Your task to perform on an android device: turn notification dots off Image 0: 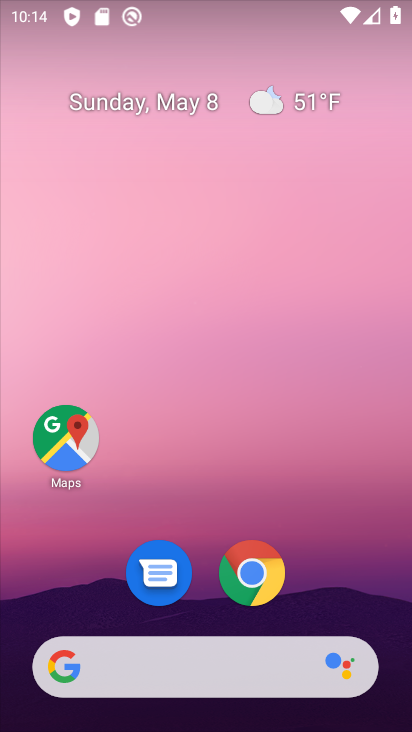
Step 0: drag from (182, 638) to (250, 70)
Your task to perform on an android device: turn notification dots off Image 1: 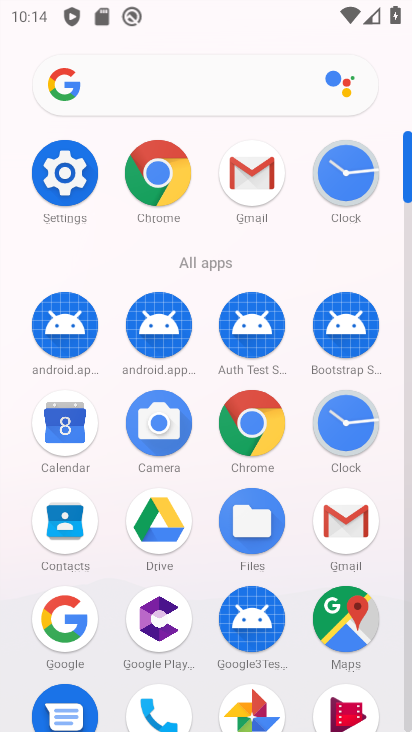
Step 1: click (64, 174)
Your task to perform on an android device: turn notification dots off Image 2: 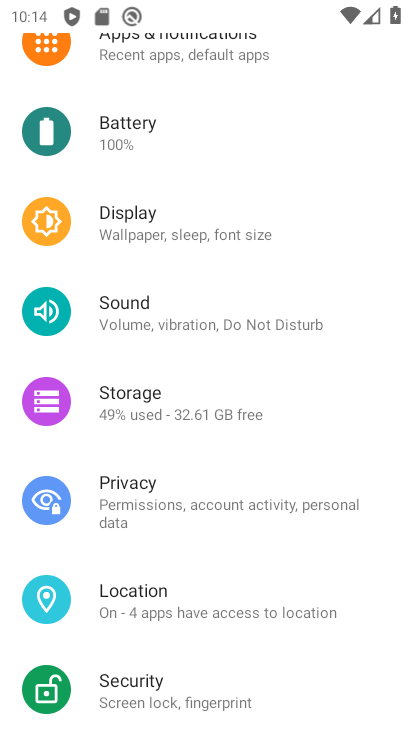
Step 2: drag from (124, 673) to (180, 273)
Your task to perform on an android device: turn notification dots off Image 3: 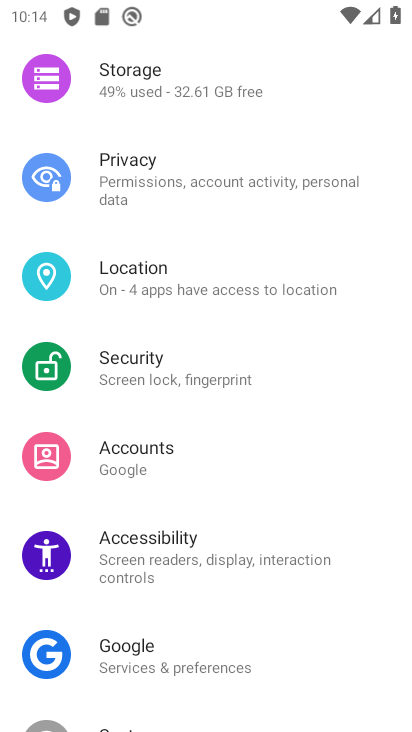
Step 3: drag from (231, 97) to (201, 645)
Your task to perform on an android device: turn notification dots off Image 4: 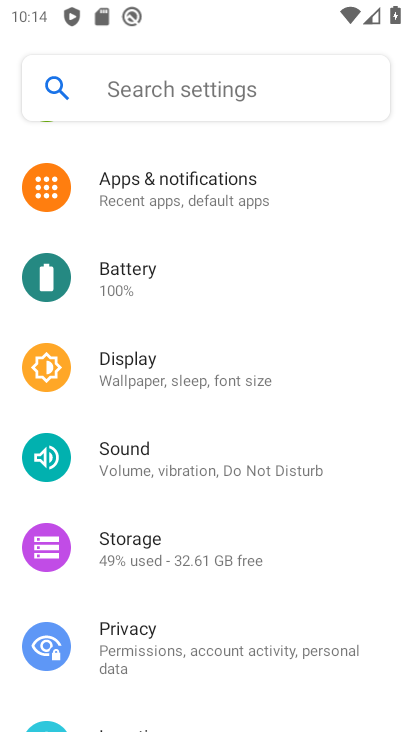
Step 4: click (172, 186)
Your task to perform on an android device: turn notification dots off Image 5: 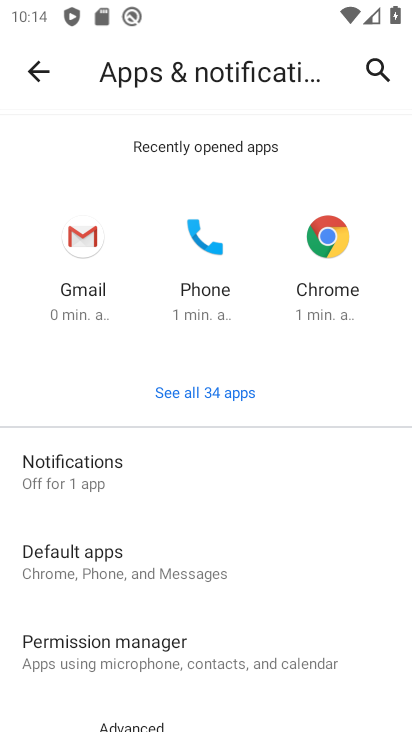
Step 5: drag from (90, 632) to (80, 309)
Your task to perform on an android device: turn notification dots off Image 6: 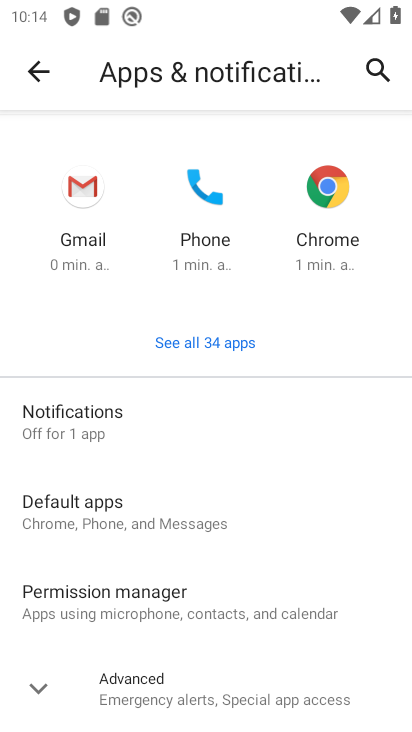
Step 6: click (52, 437)
Your task to perform on an android device: turn notification dots off Image 7: 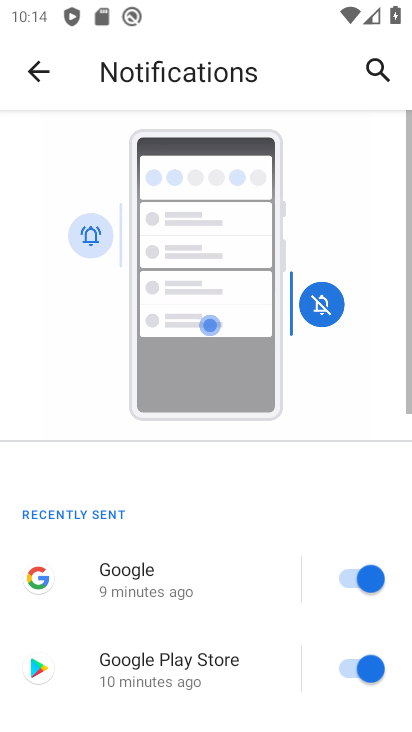
Step 7: drag from (138, 667) to (125, 291)
Your task to perform on an android device: turn notification dots off Image 8: 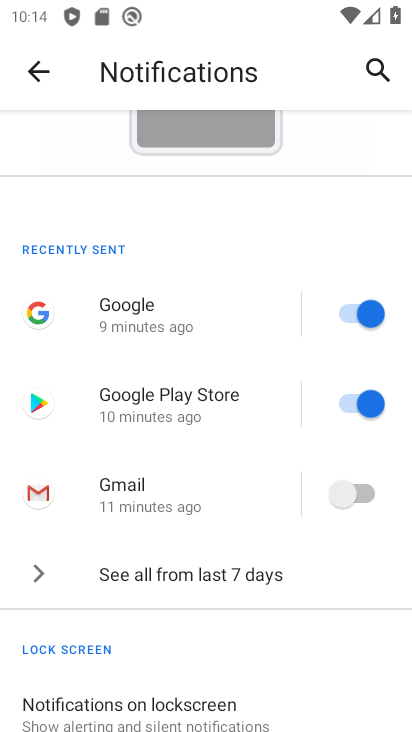
Step 8: drag from (166, 613) to (170, 290)
Your task to perform on an android device: turn notification dots off Image 9: 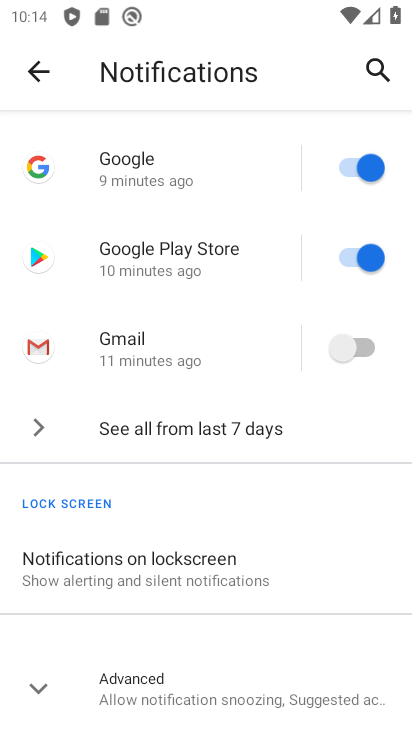
Step 9: click (137, 683)
Your task to perform on an android device: turn notification dots off Image 10: 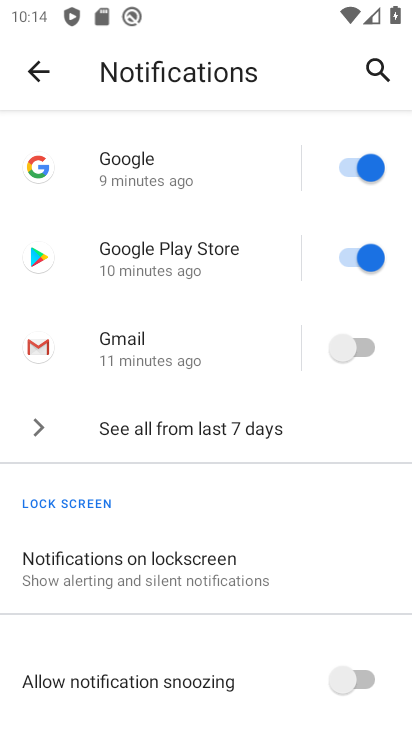
Step 10: drag from (143, 658) to (208, 261)
Your task to perform on an android device: turn notification dots off Image 11: 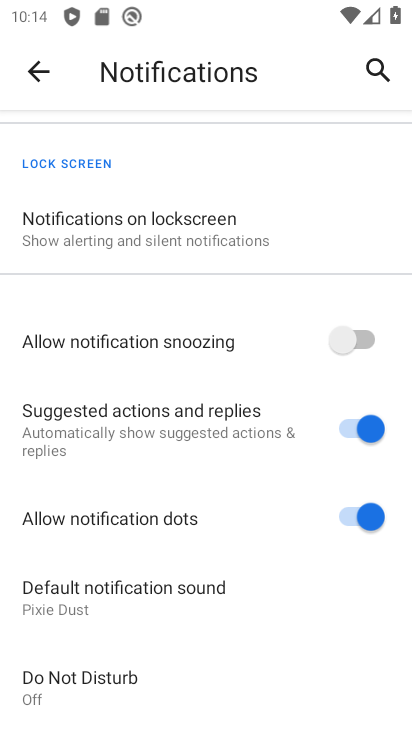
Step 11: click (353, 515)
Your task to perform on an android device: turn notification dots off Image 12: 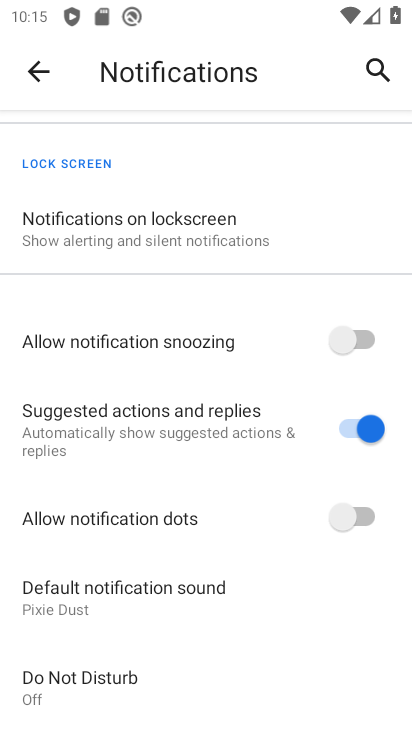
Step 12: task complete